Your task to perform on an android device: Open battery settings Image 0: 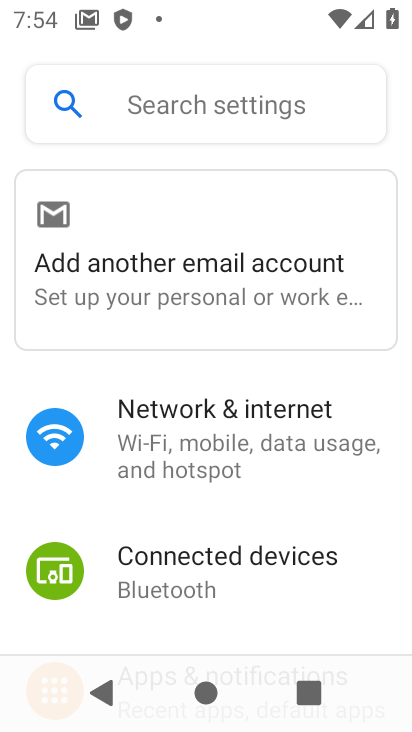
Step 0: drag from (187, 562) to (284, 109)
Your task to perform on an android device: Open battery settings Image 1: 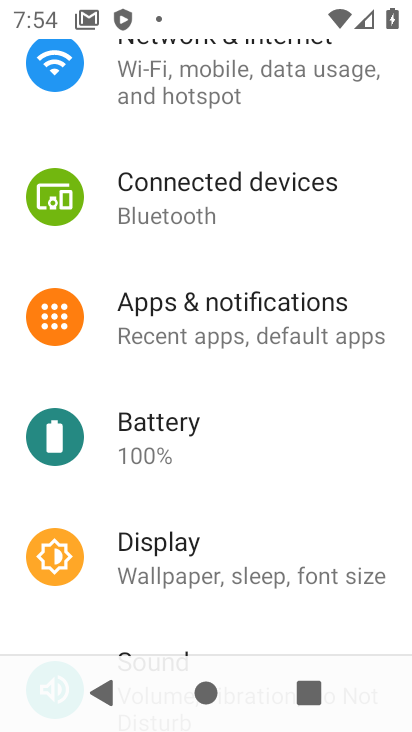
Step 1: click (177, 420)
Your task to perform on an android device: Open battery settings Image 2: 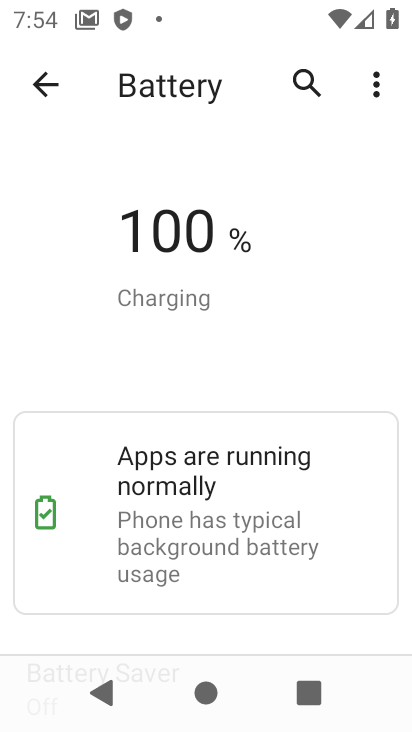
Step 2: task complete